Your task to perform on an android device: turn on javascript in the chrome app Image 0: 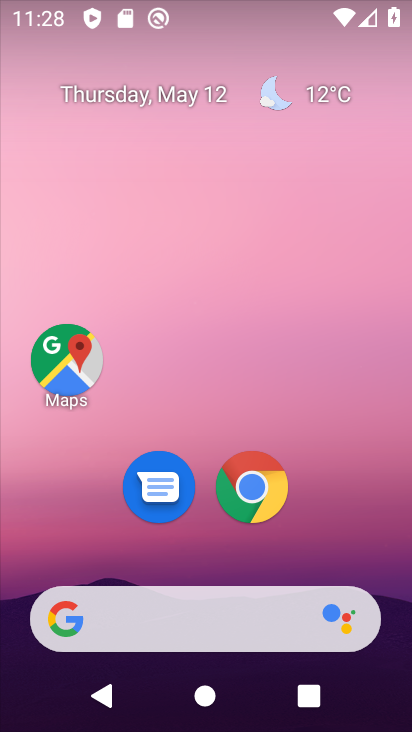
Step 0: click (253, 486)
Your task to perform on an android device: turn on javascript in the chrome app Image 1: 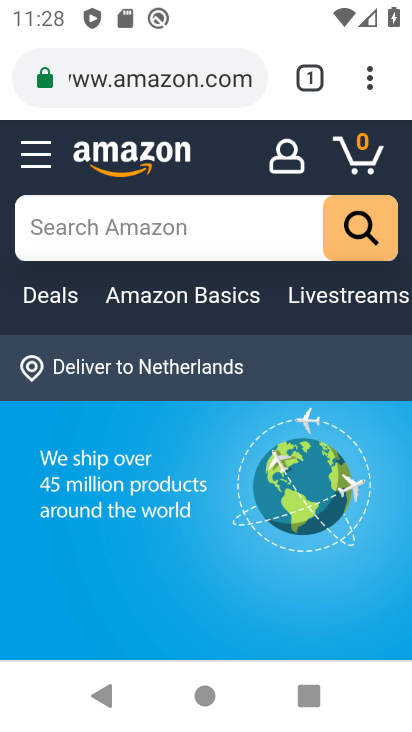
Step 1: drag from (365, 73) to (77, 530)
Your task to perform on an android device: turn on javascript in the chrome app Image 2: 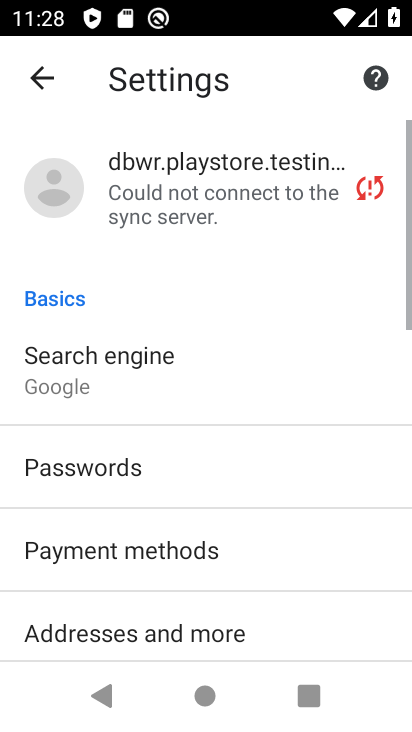
Step 2: drag from (190, 590) to (294, 48)
Your task to perform on an android device: turn on javascript in the chrome app Image 3: 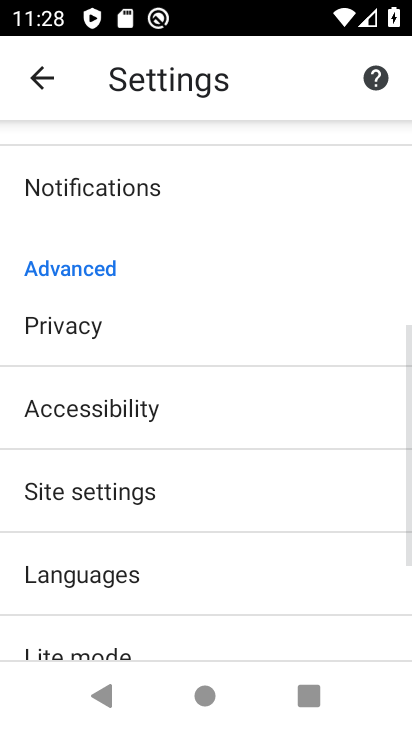
Step 3: drag from (187, 592) to (297, 132)
Your task to perform on an android device: turn on javascript in the chrome app Image 4: 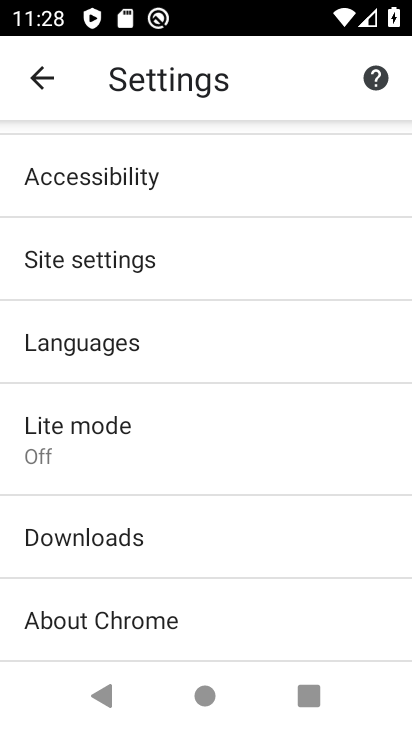
Step 4: click (102, 264)
Your task to perform on an android device: turn on javascript in the chrome app Image 5: 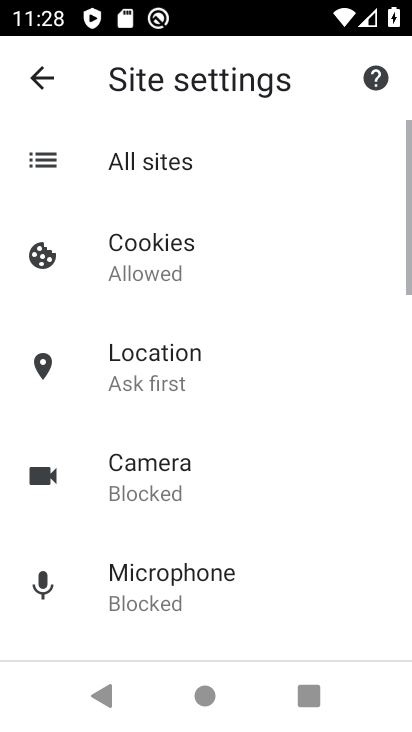
Step 5: drag from (228, 589) to (327, 173)
Your task to perform on an android device: turn on javascript in the chrome app Image 6: 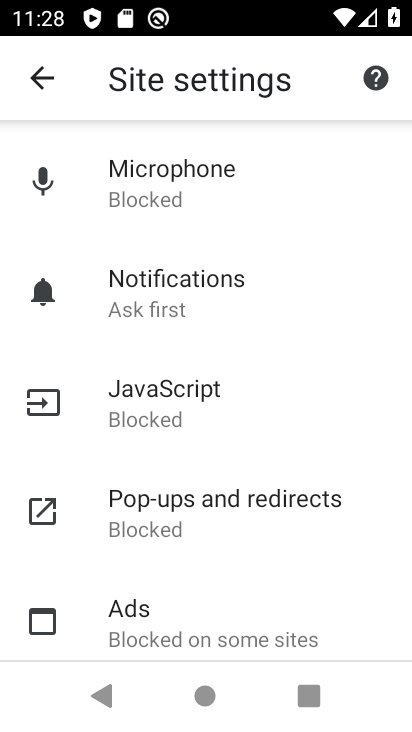
Step 6: click (143, 408)
Your task to perform on an android device: turn on javascript in the chrome app Image 7: 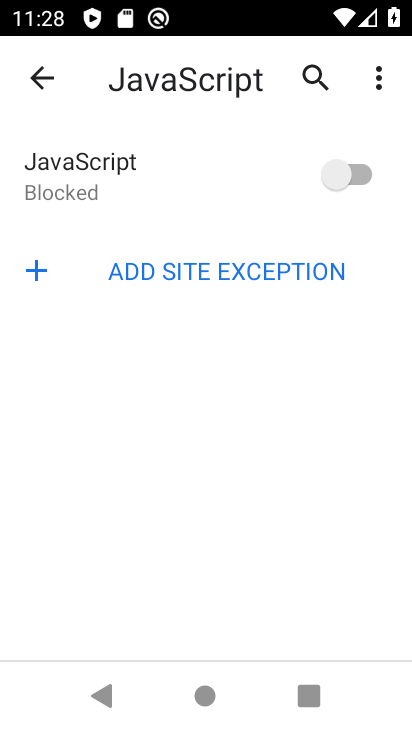
Step 7: click (344, 176)
Your task to perform on an android device: turn on javascript in the chrome app Image 8: 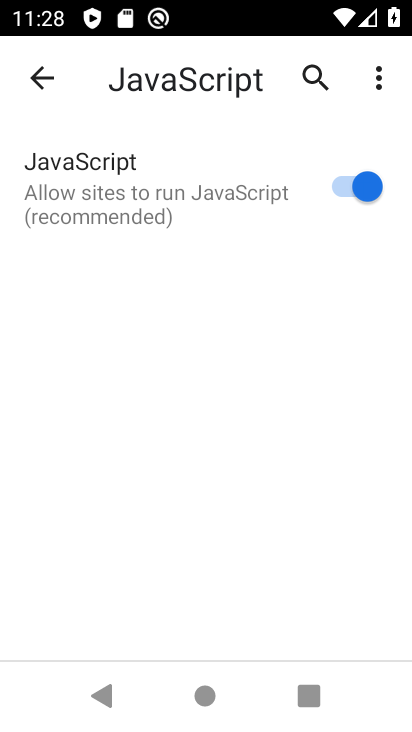
Step 8: task complete